Your task to perform on an android device: Go to Reddit.com Image 0: 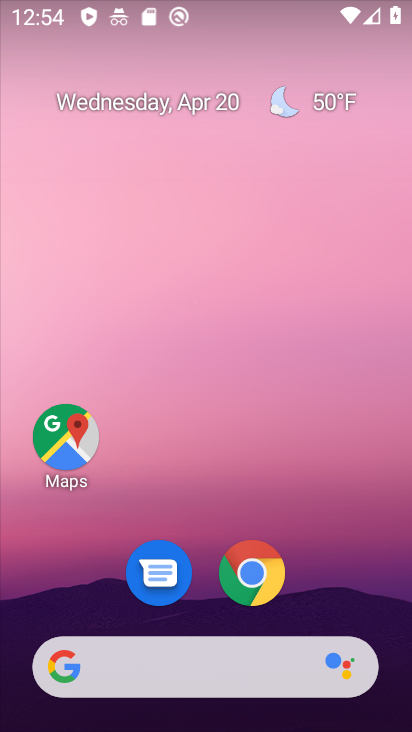
Step 0: click (244, 576)
Your task to perform on an android device: Go to Reddit.com Image 1: 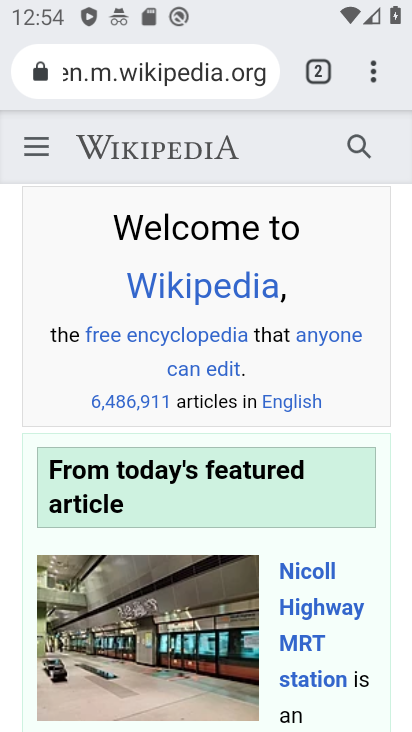
Step 1: click (225, 73)
Your task to perform on an android device: Go to Reddit.com Image 2: 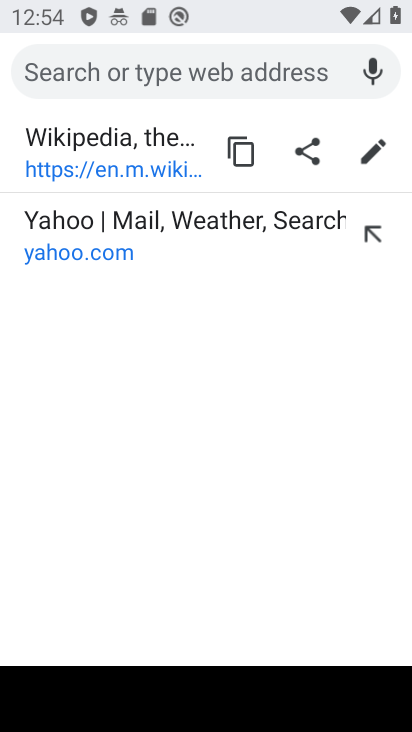
Step 2: type "reddit.com"
Your task to perform on an android device: Go to Reddit.com Image 3: 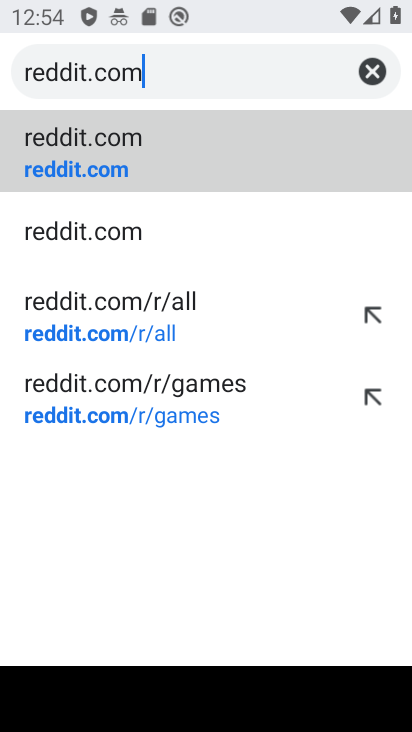
Step 3: click (79, 159)
Your task to perform on an android device: Go to Reddit.com Image 4: 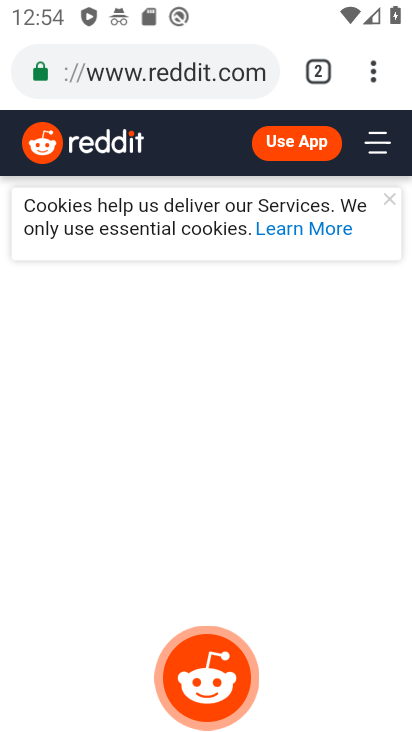
Step 4: task complete